Your task to perform on an android device: Open Google Maps and go to "Timeline" Image 0: 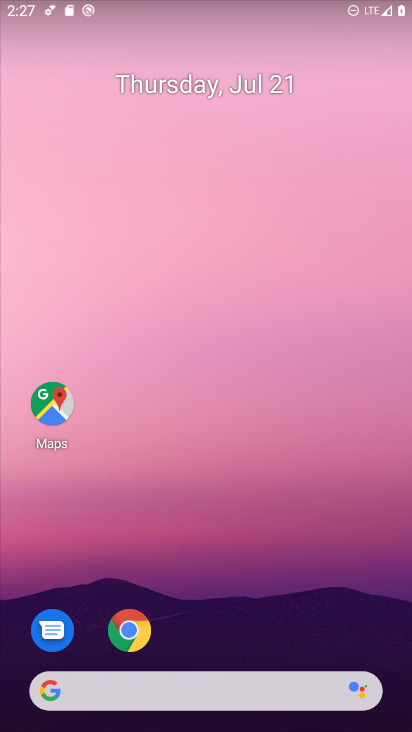
Step 0: drag from (360, 612) to (368, 536)
Your task to perform on an android device: Open Google Maps and go to "Timeline" Image 1: 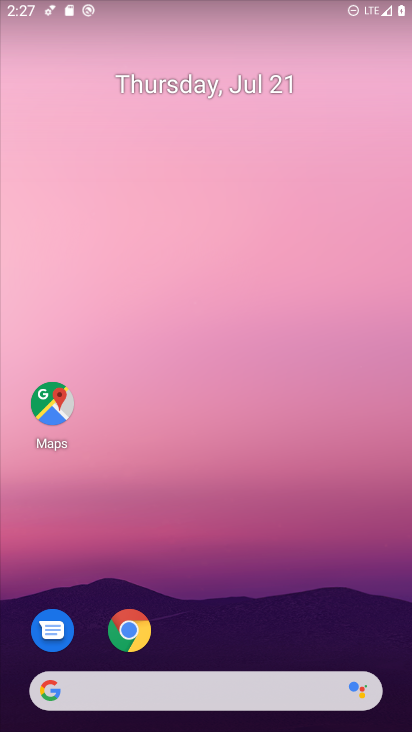
Step 1: click (35, 399)
Your task to perform on an android device: Open Google Maps and go to "Timeline" Image 2: 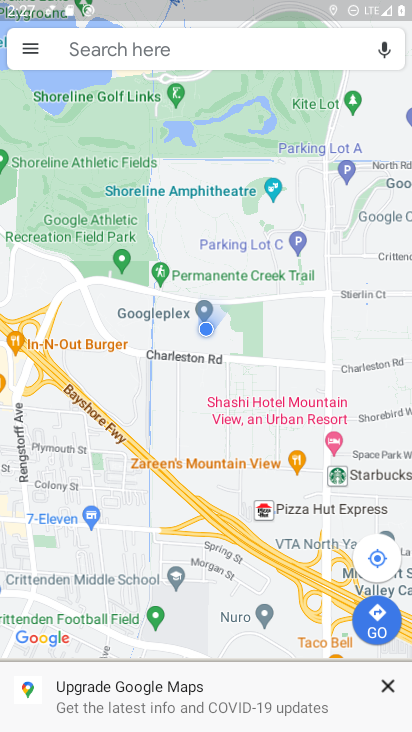
Step 2: click (25, 48)
Your task to perform on an android device: Open Google Maps and go to "Timeline" Image 3: 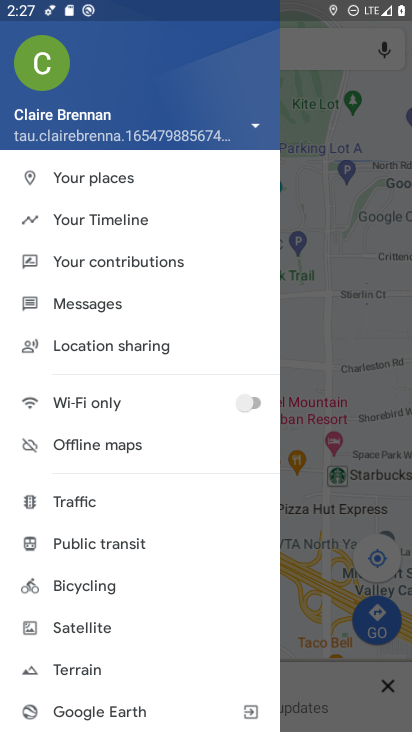
Step 3: click (141, 221)
Your task to perform on an android device: Open Google Maps and go to "Timeline" Image 4: 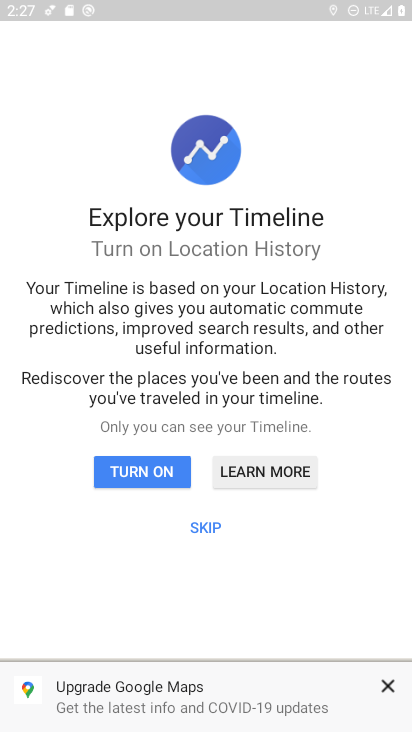
Step 4: click (199, 528)
Your task to perform on an android device: Open Google Maps and go to "Timeline" Image 5: 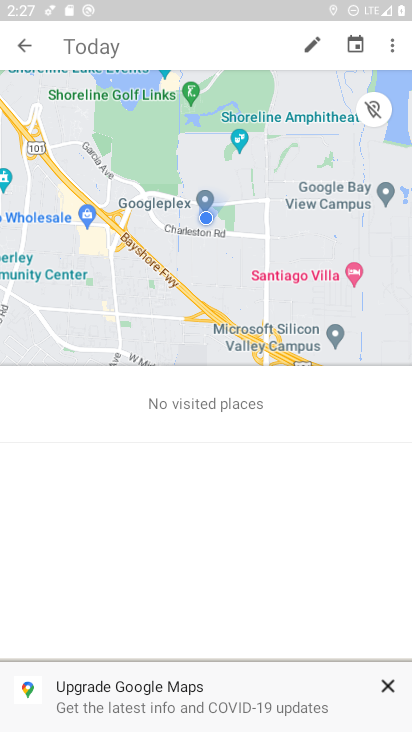
Step 5: task complete